Your task to perform on an android device: turn on improve location accuracy Image 0: 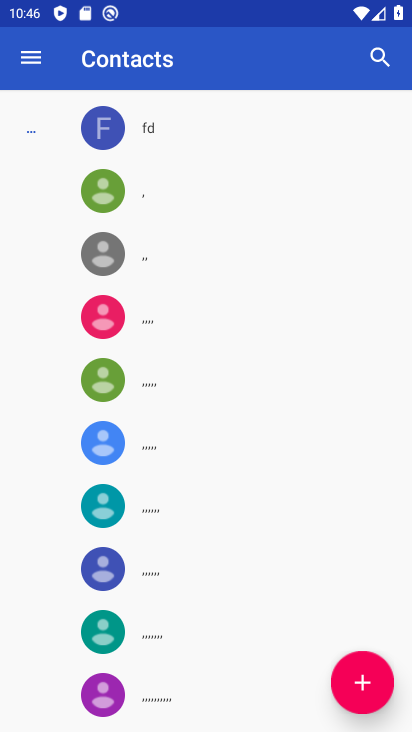
Step 0: press home button
Your task to perform on an android device: turn on improve location accuracy Image 1: 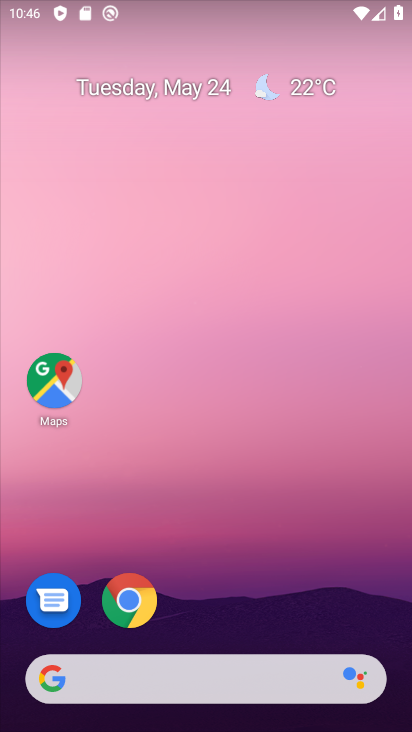
Step 1: drag from (191, 372) to (176, 160)
Your task to perform on an android device: turn on improve location accuracy Image 2: 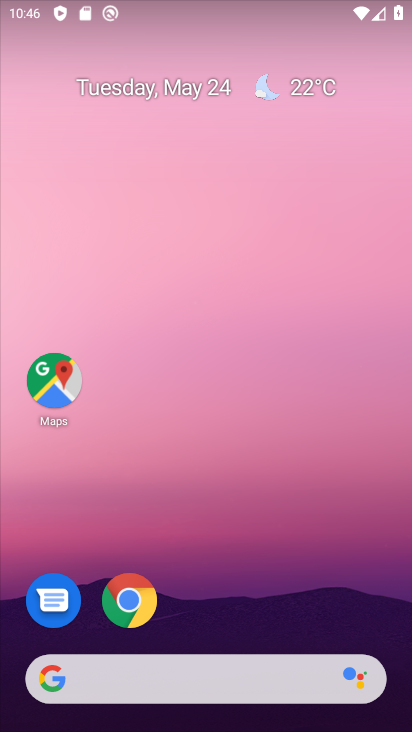
Step 2: drag from (220, 637) to (175, 134)
Your task to perform on an android device: turn on improve location accuracy Image 3: 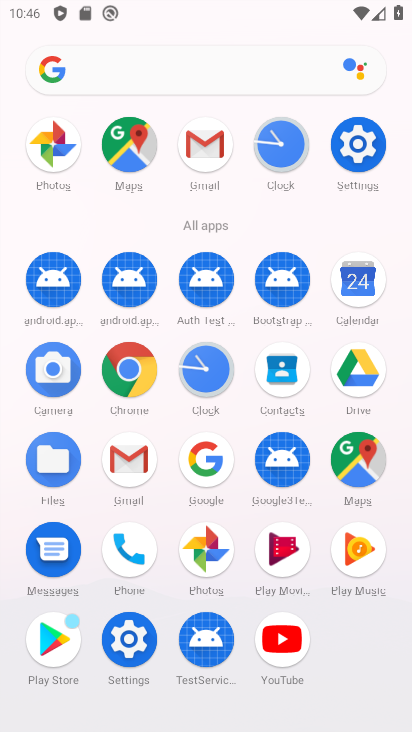
Step 3: click (364, 139)
Your task to perform on an android device: turn on improve location accuracy Image 4: 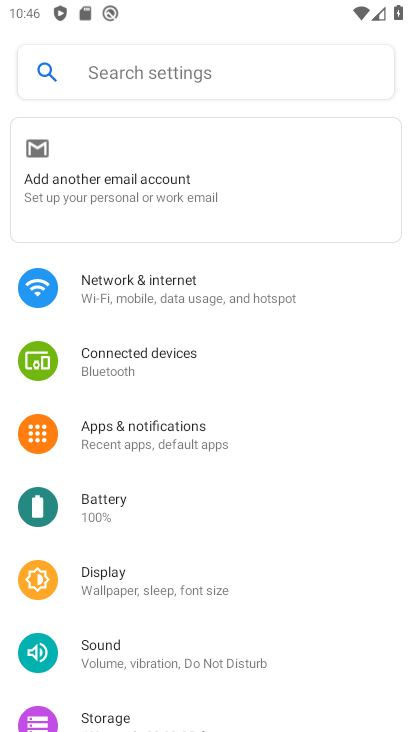
Step 4: drag from (130, 685) to (174, 240)
Your task to perform on an android device: turn on improve location accuracy Image 5: 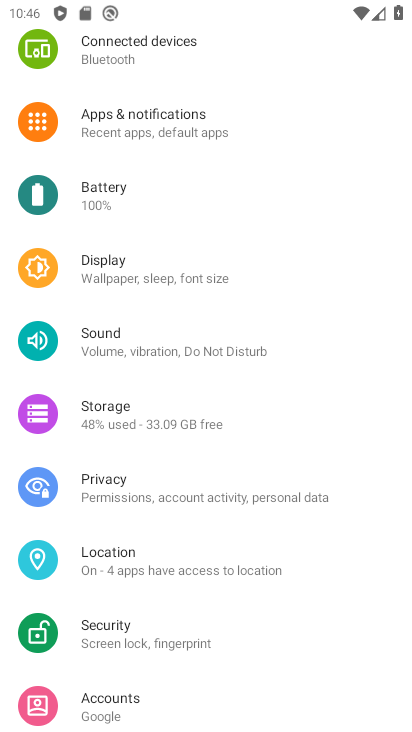
Step 5: click (129, 553)
Your task to perform on an android device: turn on improve location accuracy Image 6: 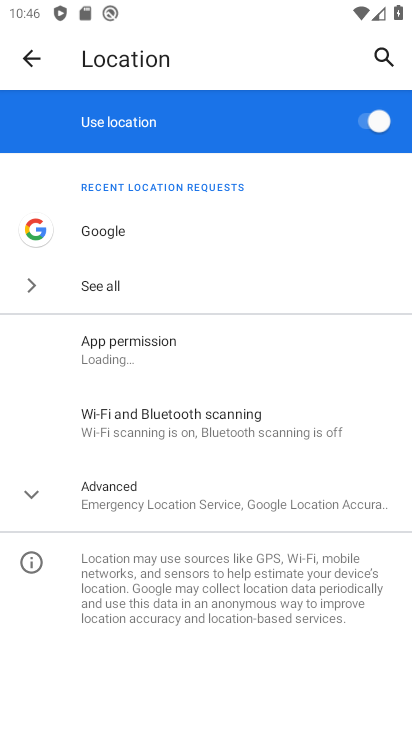
Step 6: click (142, 494)
Your task to perform on an android device: turn on improve location accuracy Image 7: 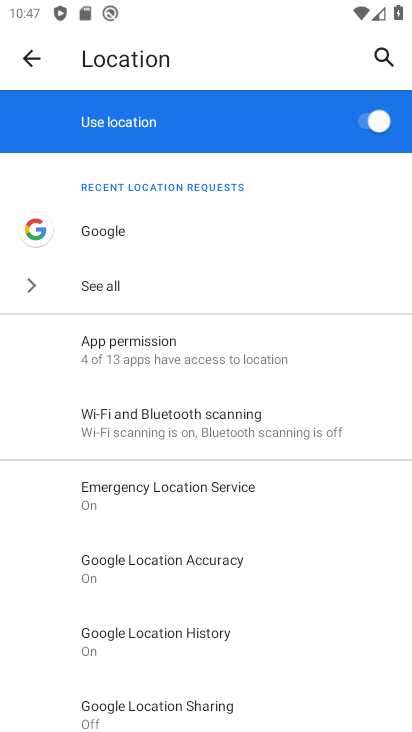
Step 7: task complete